Your task to perform on an android device: turn vacation reply on in the gmail app Image 0: 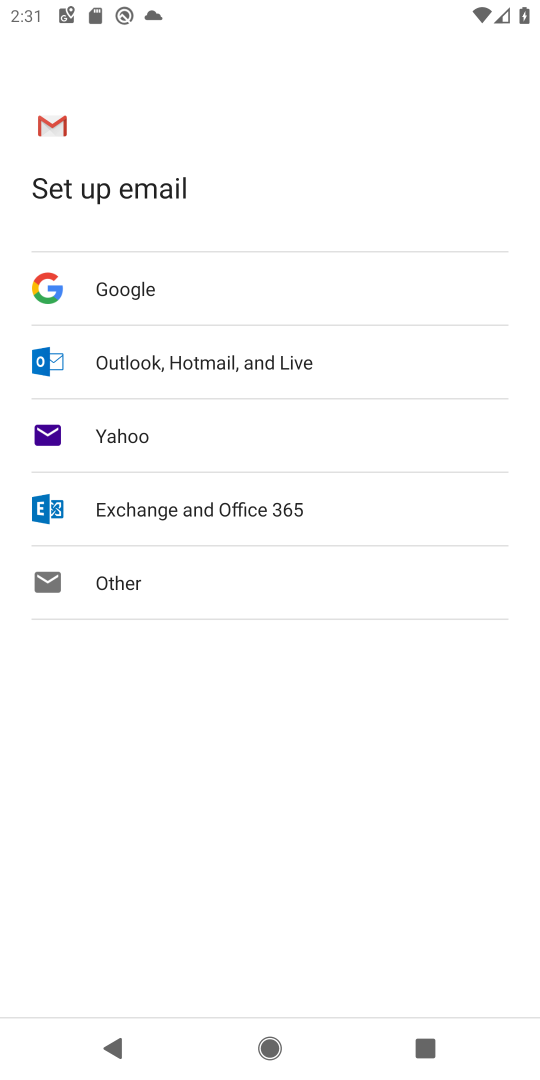
Step 0: press home button
Your task to perform on an android device: turn vacation reply on in the gmail app Image 1: 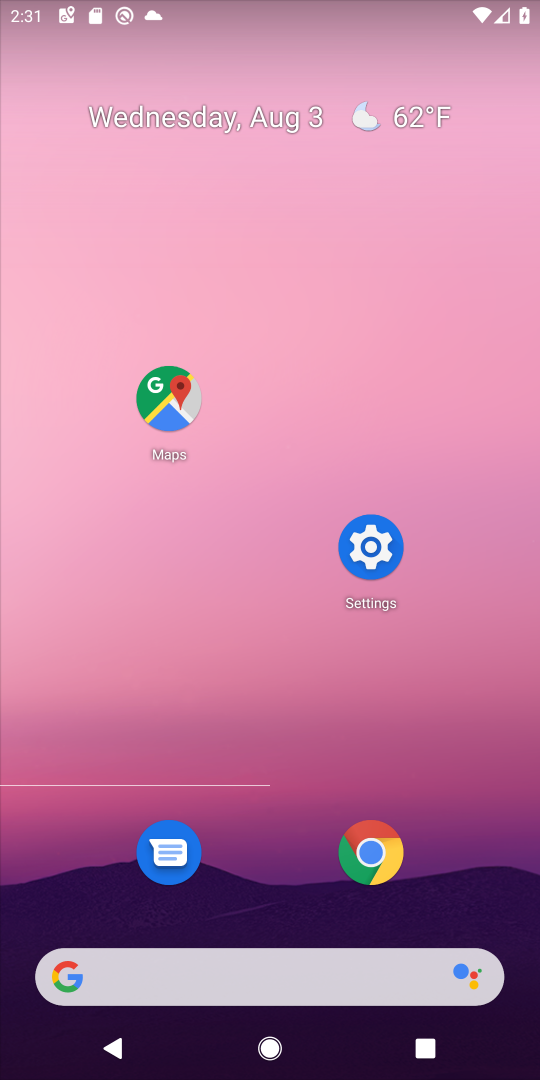
Step 1: drag from (281, 908) to (451, 151)
Your task to perform on an android device: turn vacation reply on in the gmail app Image 2: 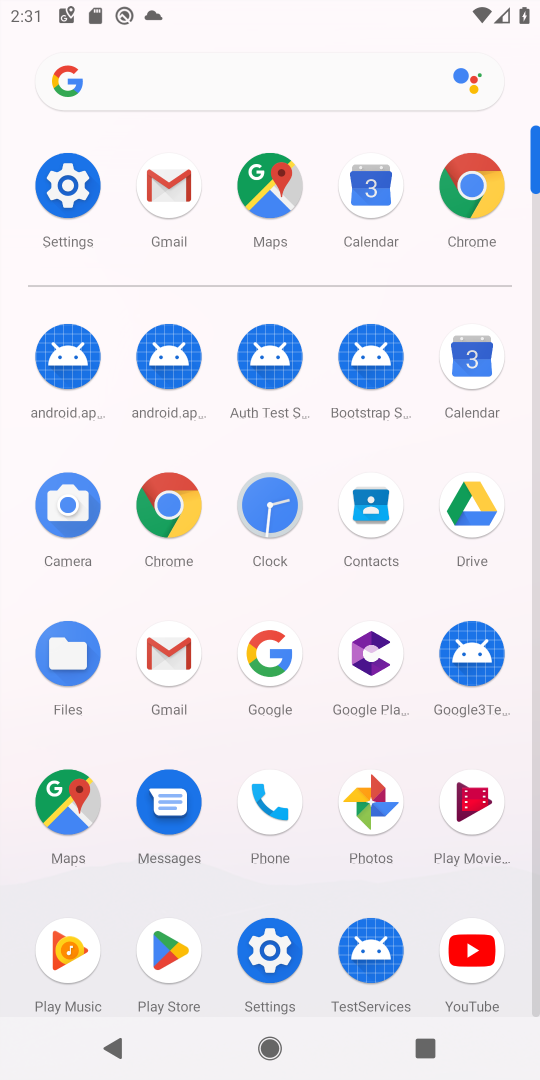
Step 2: click (172, 206)
Your task to perform on an android device: turn vacation reply on in the gmail app Image 3: 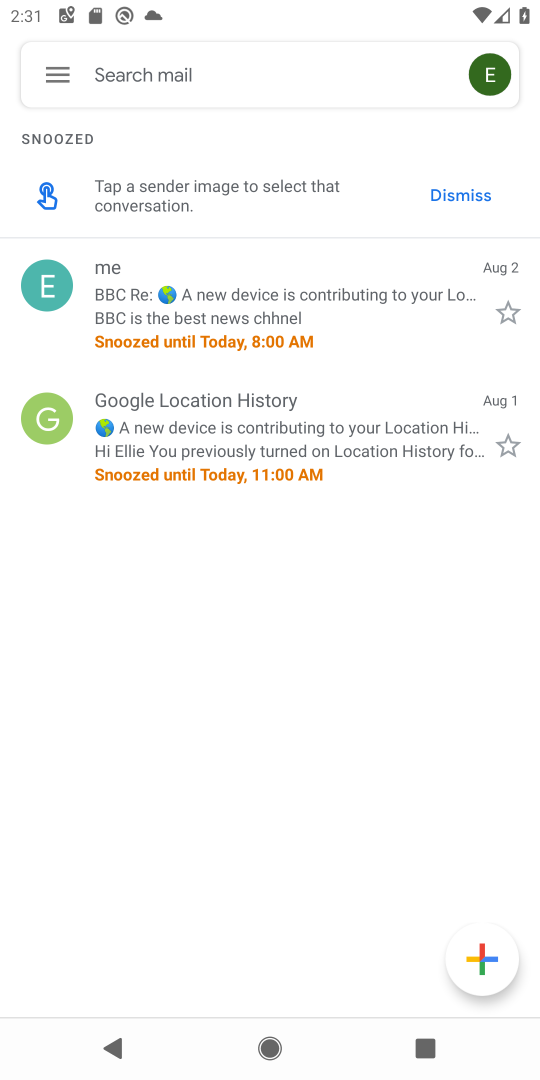
Step 3: click (66, 67)
Your task to perform on an android device: turn vacation reply on in the gmail app Image 4: 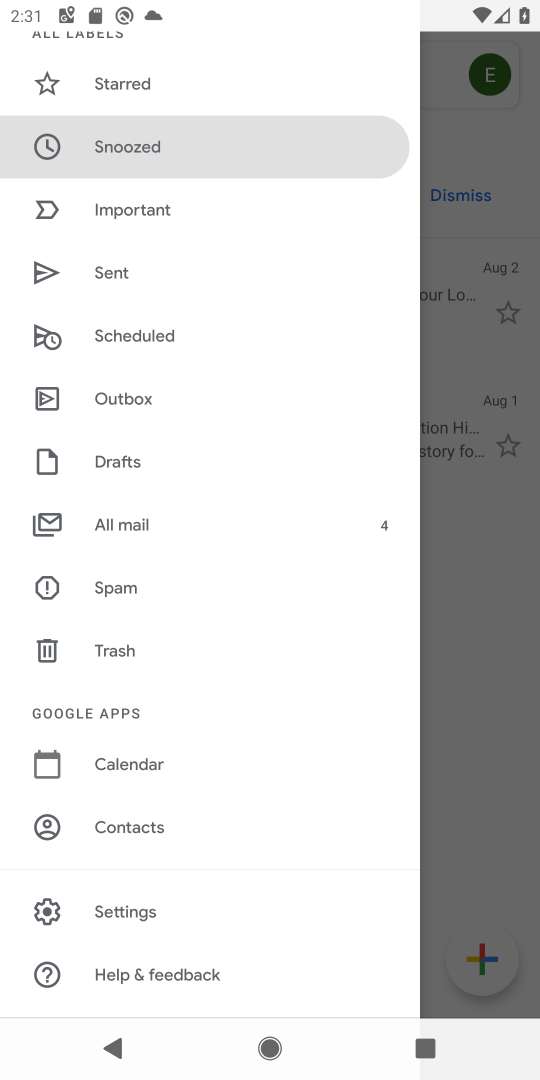
Step 4: click (143, 907)
Your task to perform on an android device: turn vacation reply on in the gmail app Image 5: 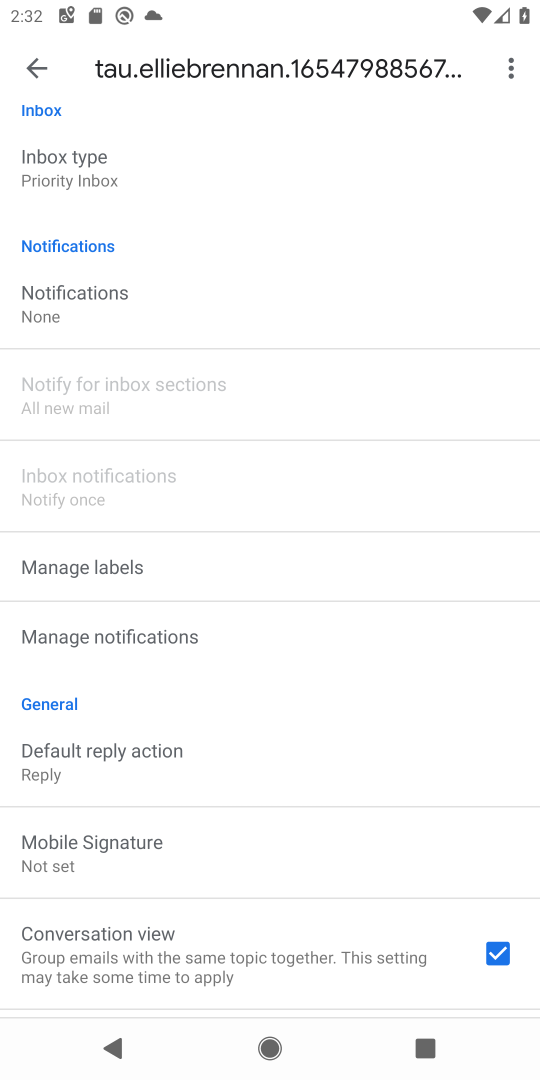
Step 5: drag from (282, 831) to (525, 174)
Your task to perform on an android device: turn vacation reply on in the gmail app Image 6: 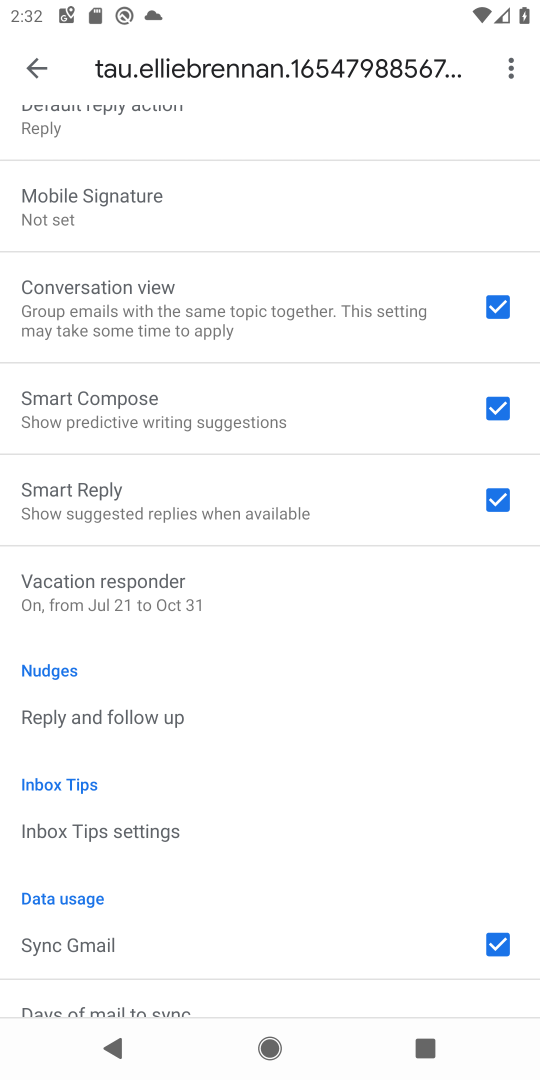
Step 6: click (161, 587)
Your task to perform on an android device: turn vacation reply on in the gmail app Image 7: 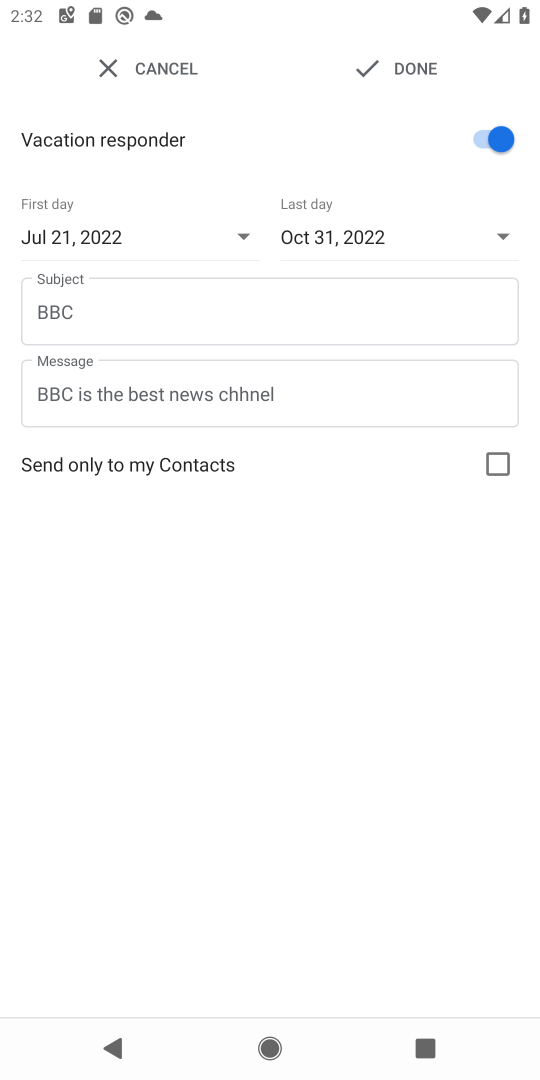
Step 7: task complete